Your task to perform on an android device: all mails in gmail Image 0: 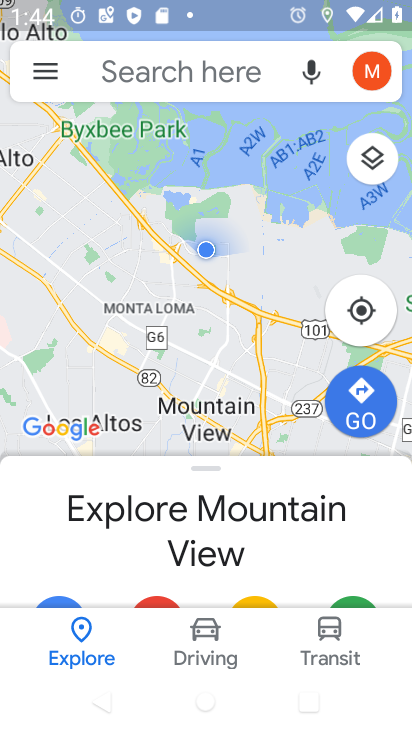
Step 0: press home button
Your task to perform on an android device: all mails in gmail Image 1: 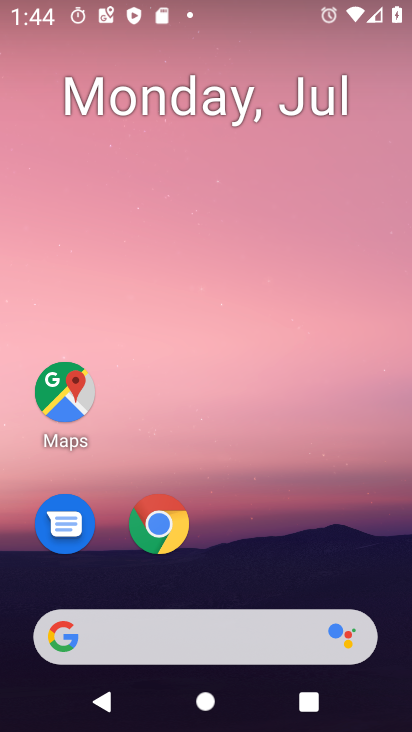
Step 1: drag from (271, 477) to (254, 84)
Your task to perform on an android device: all mails in gmail Image 2: 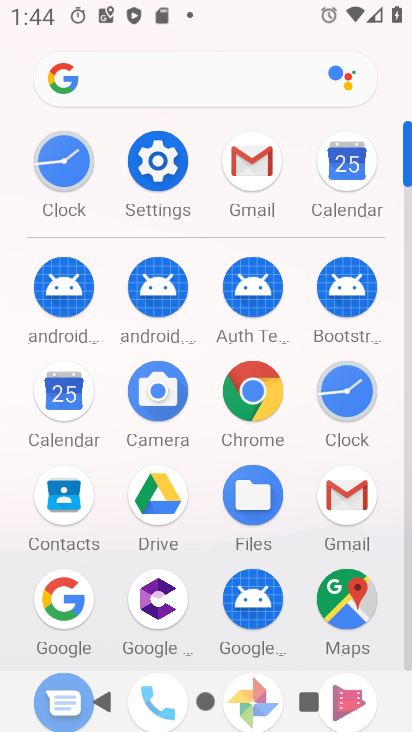
Step 2: click (264, 163)
Your task to perform on an android device: all mails in gmail Image 3: 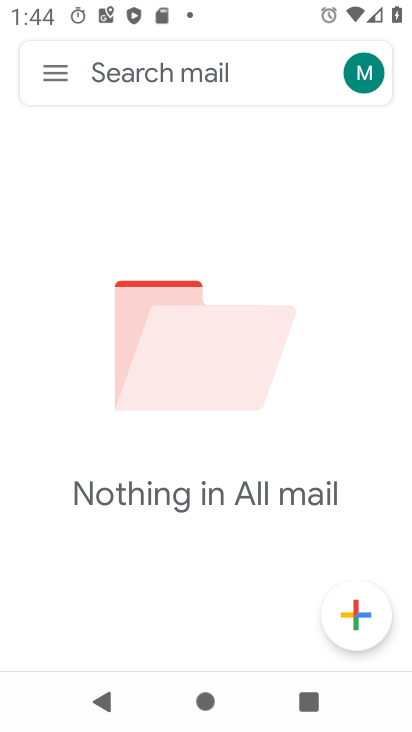
Step 3: click (55, 74)
Your task to perform on an android device: all mails in gmail Image 4: 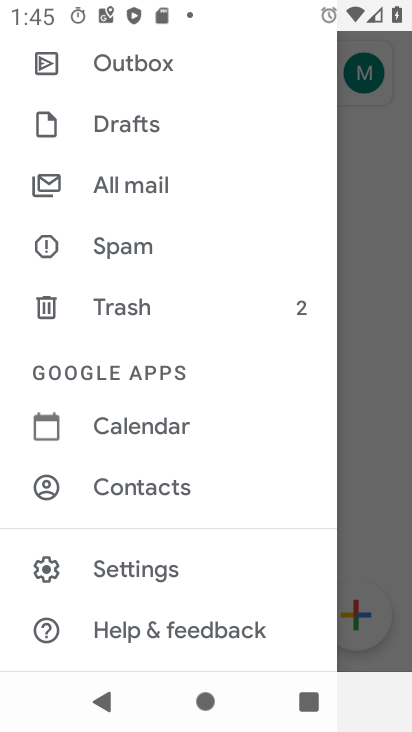
Step 4: click (143, 177)
Your task to perform on an android device: all mails in gmail Image 5: 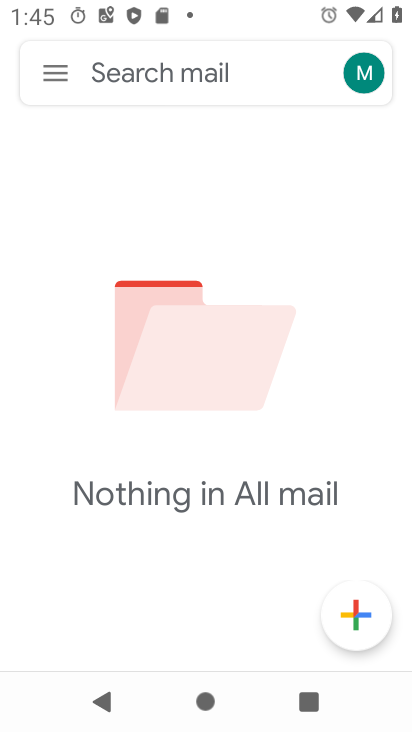
Step 5: task complete